Your task to perform on an android device: set the timer Image 0: 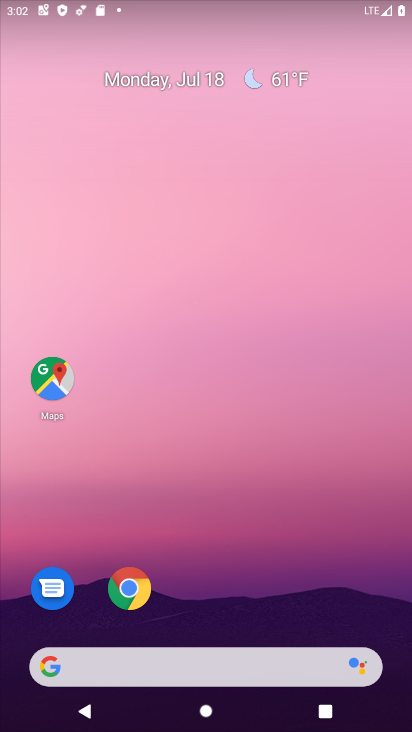
Step 0: drag from (252, 597) to (269, 9)
Your task to perform on an android device: set the timer Image 1: 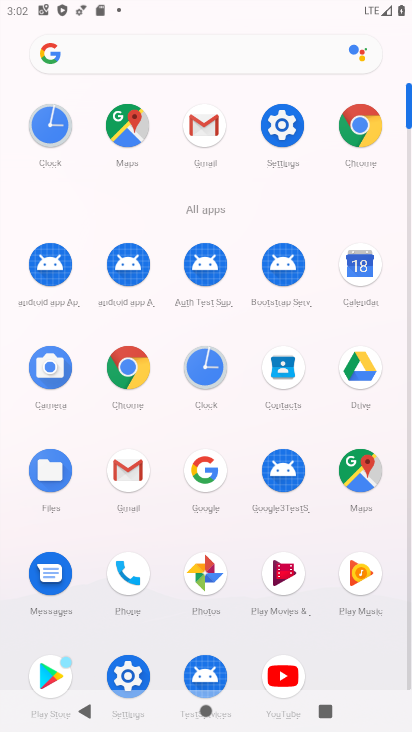
Step 1: click (59, 144)
Your task to perform on an android device: set the timer Image 2: 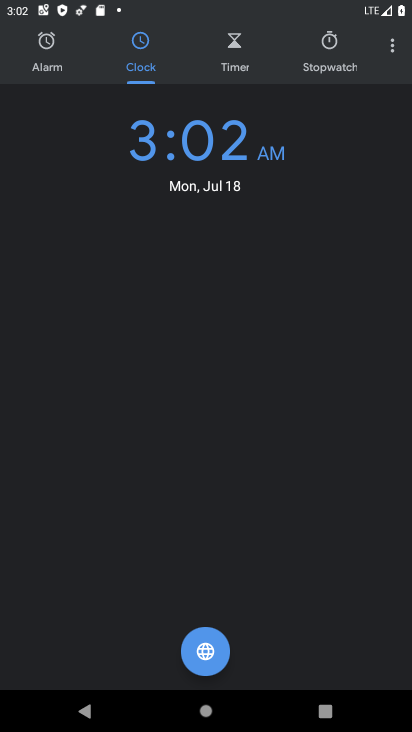
Step 2: click (225, 67)
Your task to perform on an android device: set the timer Image 3: 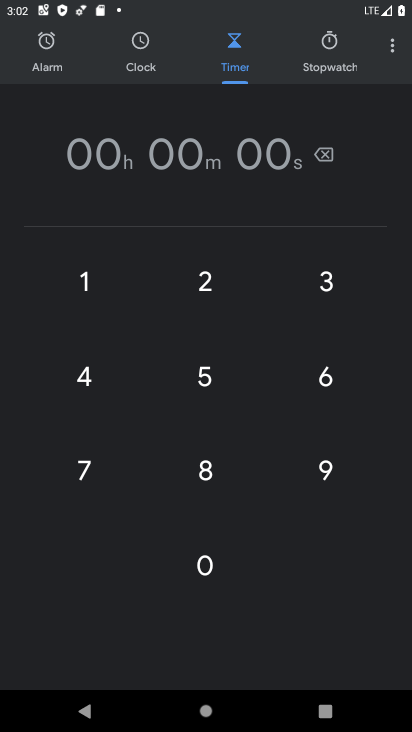
Step 3: task complete